Your task to perform on an android device: Open ESPN.com Image 0: 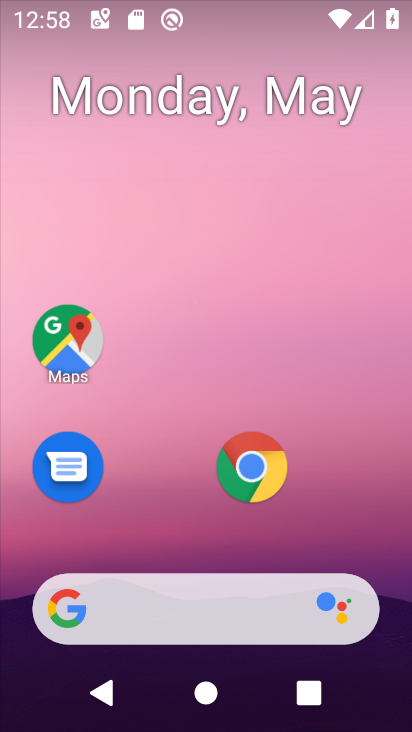
Step 0: drag from (181, 492) to (256, 116)
Your task to perform on an android device: Open ESPN.com Image 1: 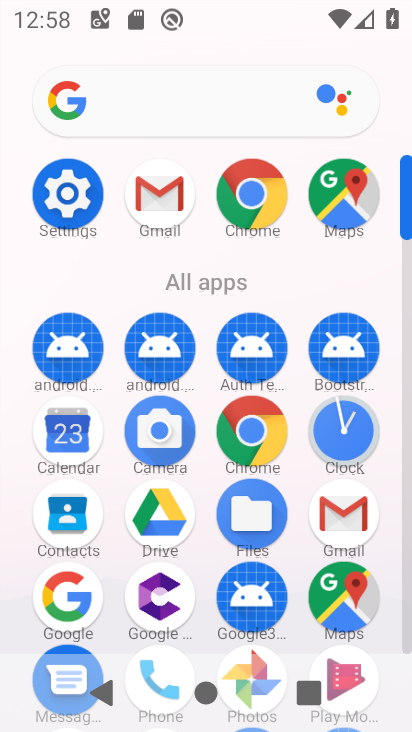
Step 1: click (142, 114)
Your task to perform on an android device: Open ESPN.com Image 2: 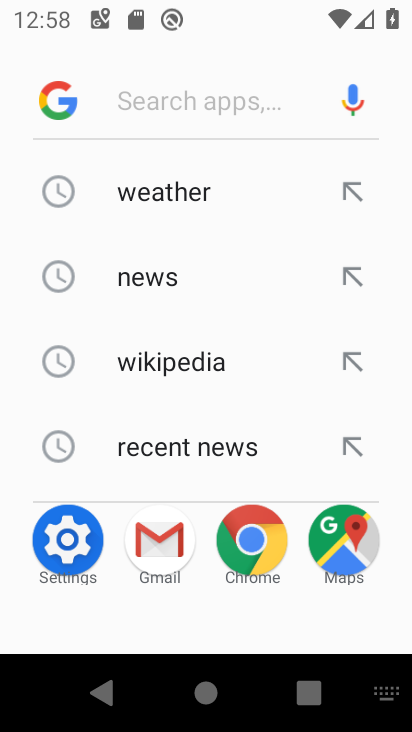
Step 2: type "espn.com"
Your task to perform on an android device: Open ESPN.com Image 3: 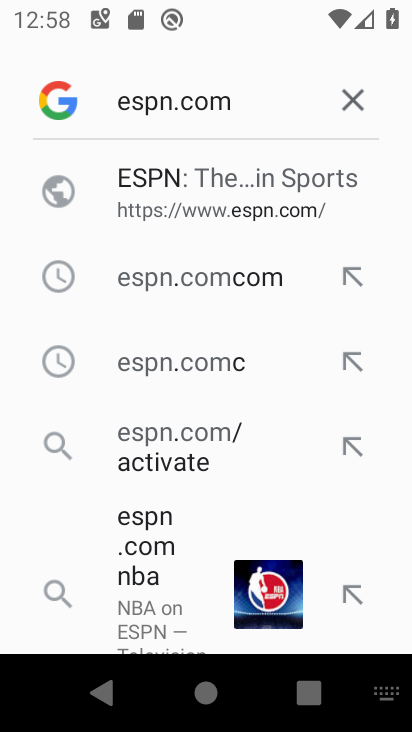
Step 3: click (129, 196)
Your task to perform on an android device: Open ESPN.com Image 4: 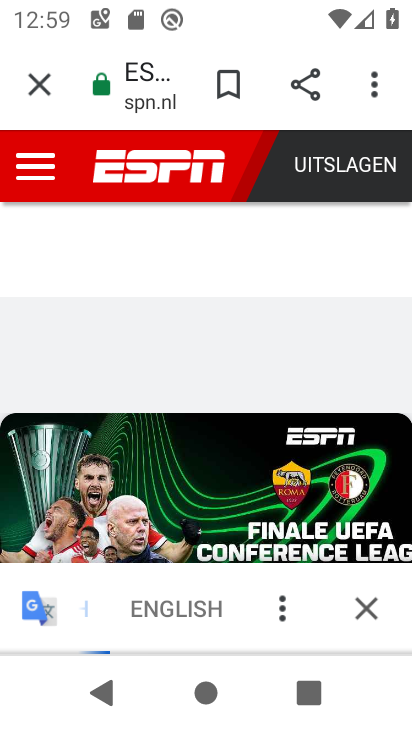
Step 4: task complete